Your task to perform on an android device: What's a good restaurant in Miami? Image 0: 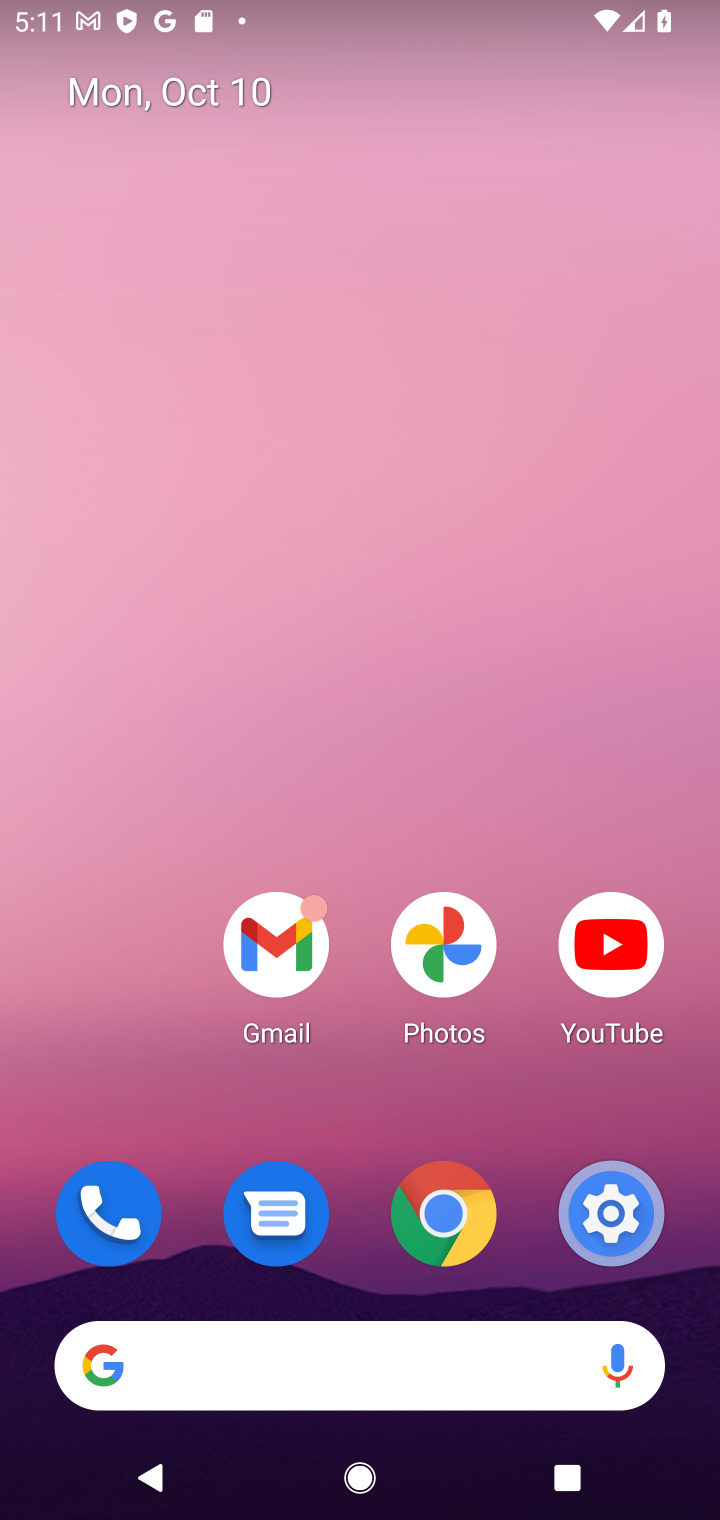
Step 0: click (309, 1394)
Your task to perform on an android device: What's a good restaurant in Miami? Image 1: 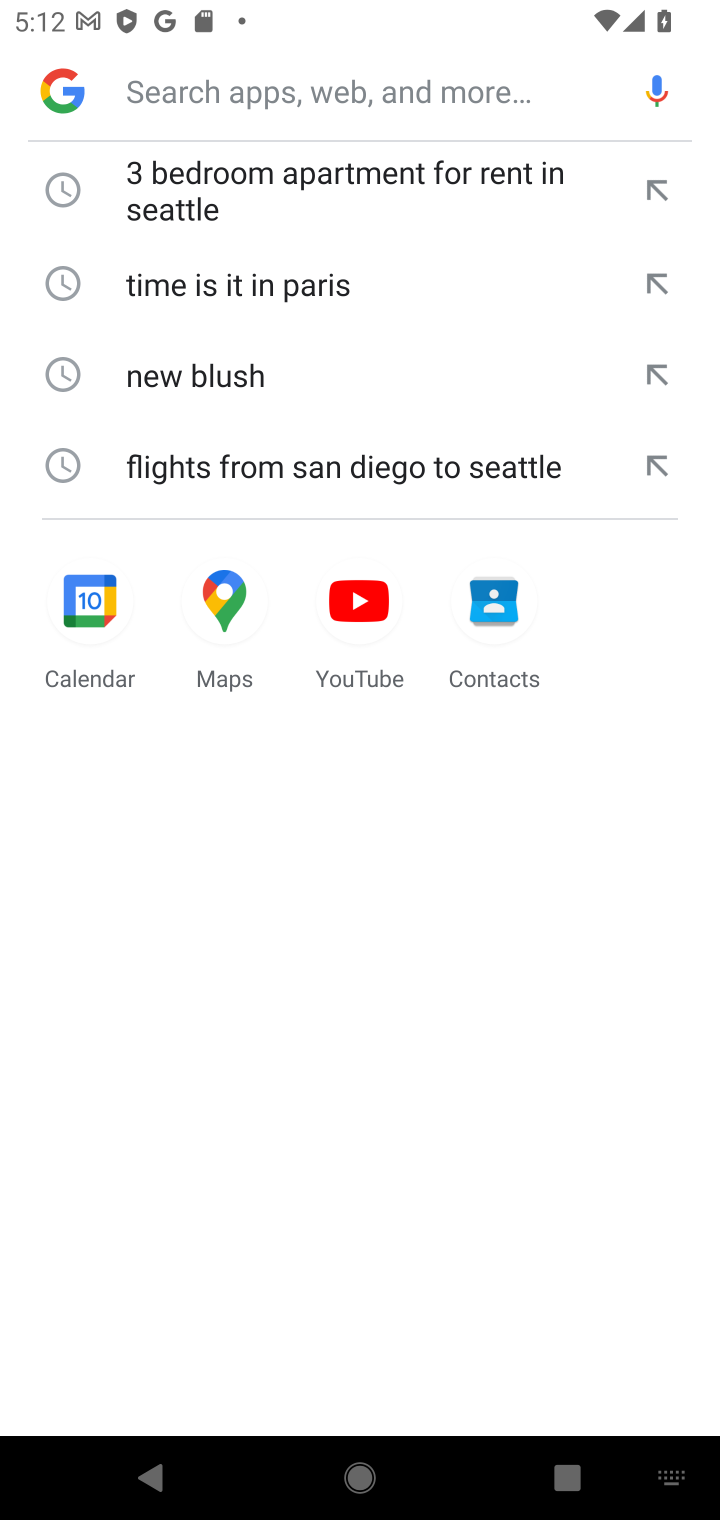
Step 1: type "good restaurant in Miami"
Your task to perform on an android device: What's a good restaurant in Miami? Image 2: 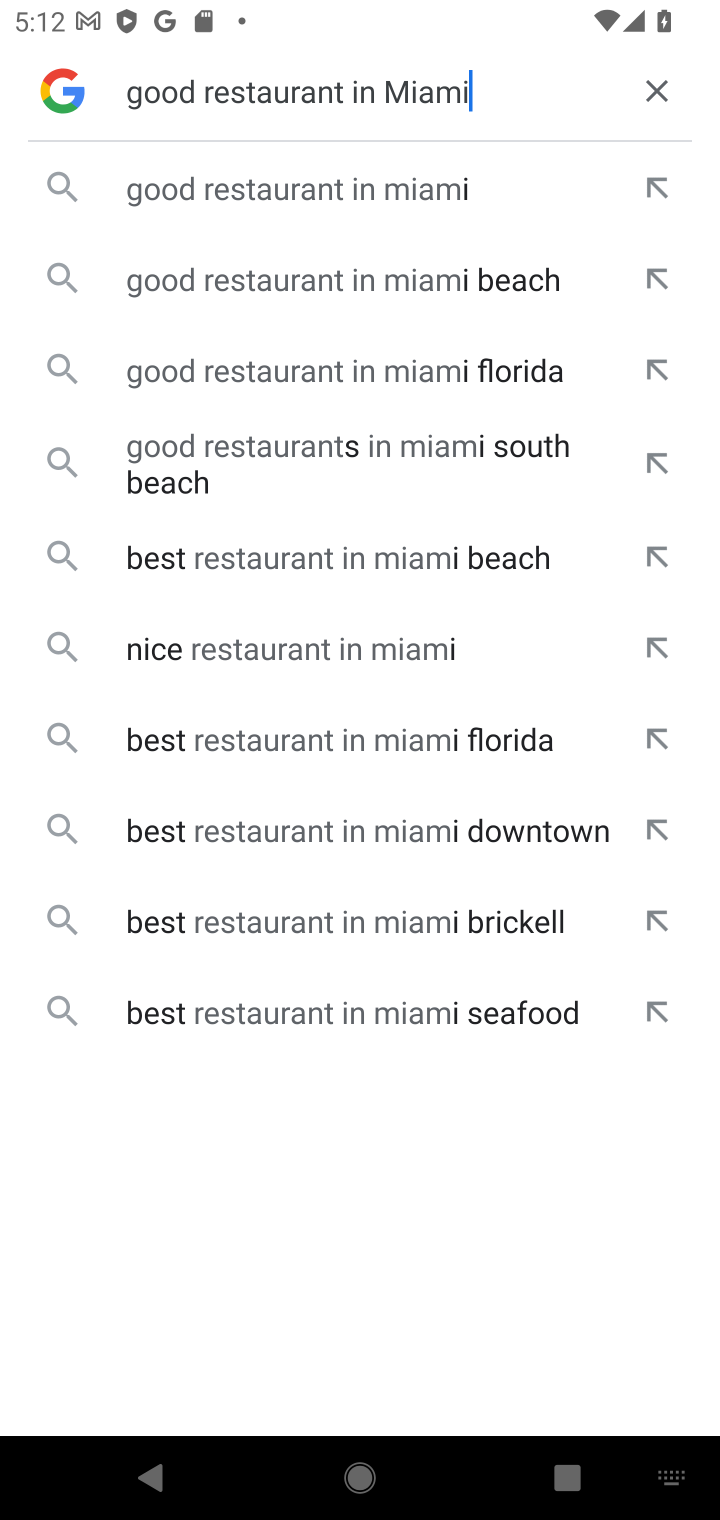
Step 2: type ""
Your task to perform on an android device: What's a good restaurant in Miami? Image 3: 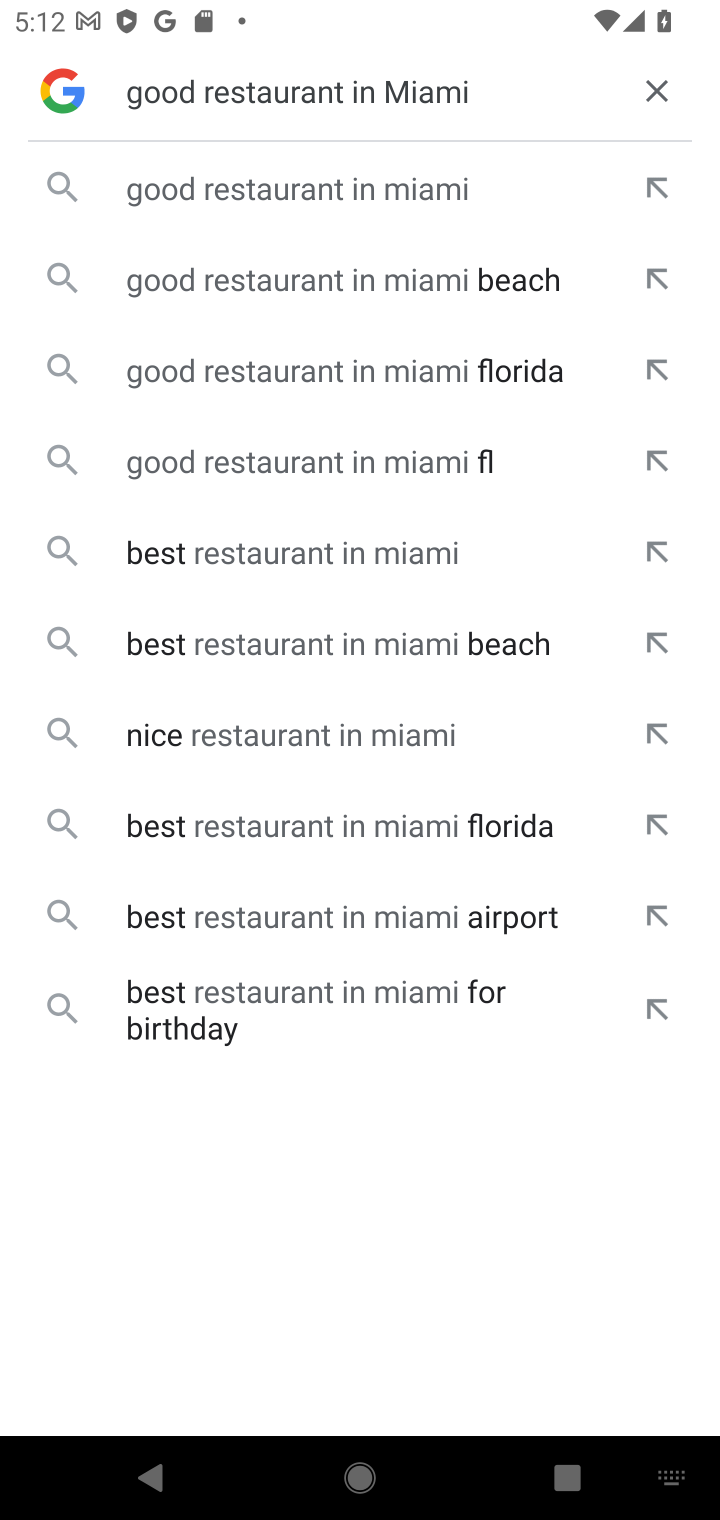
Step 3: click (474, 166)
Your task to perform on an android device: What's a good restaurant in Miami? Image 4: 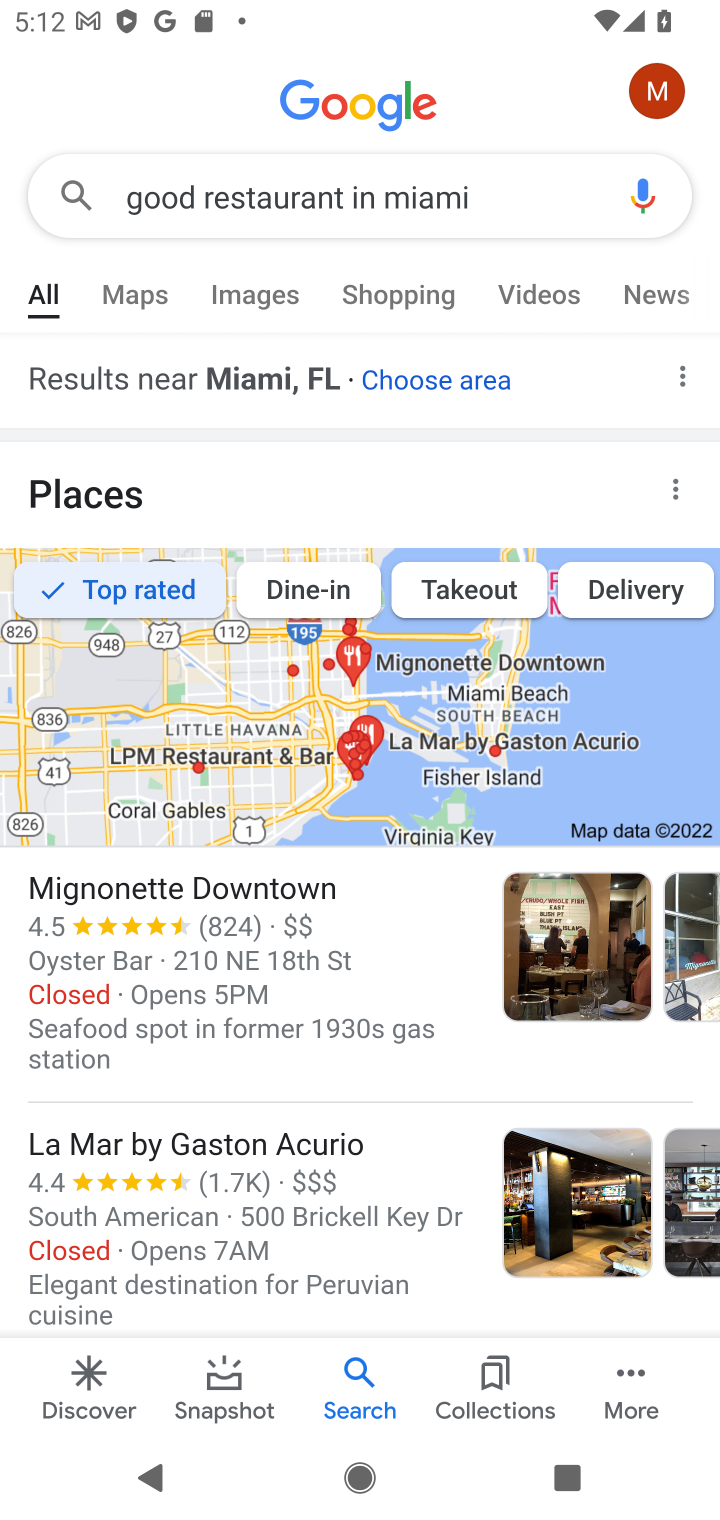
Step 4: task complete